Your task to perform on an android device: stop showing notifications on the lock screen Image 0: 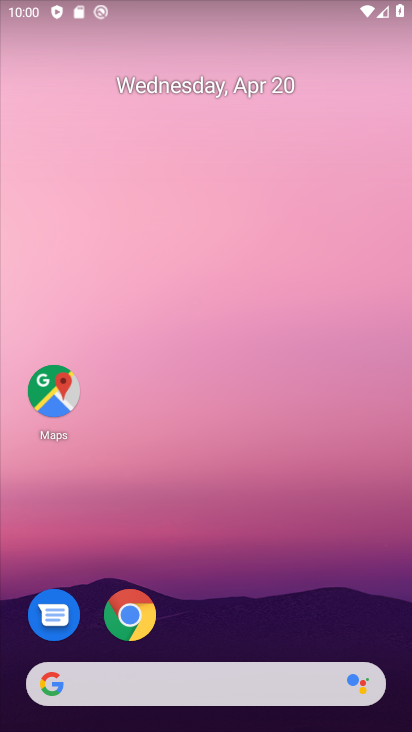
Step 0: drag from (272, 520) to (260, 14)
Your task to perform on an android device: stop showing notifications on the lock screen Image 1: 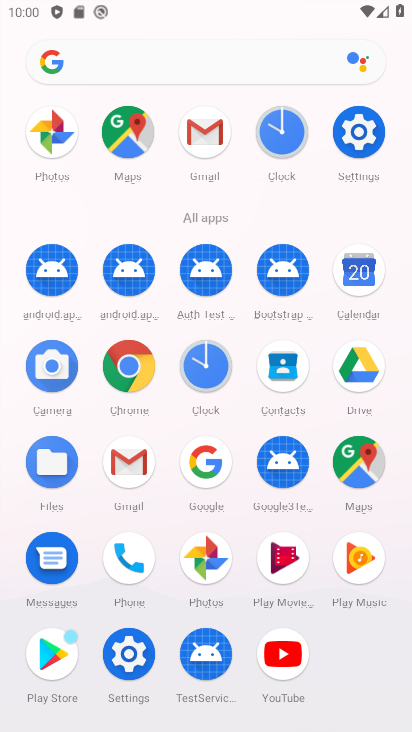
Step 1: click (355, 133)
Your task to perform on an android device: stop showing notifications on the lock screen Image 2: 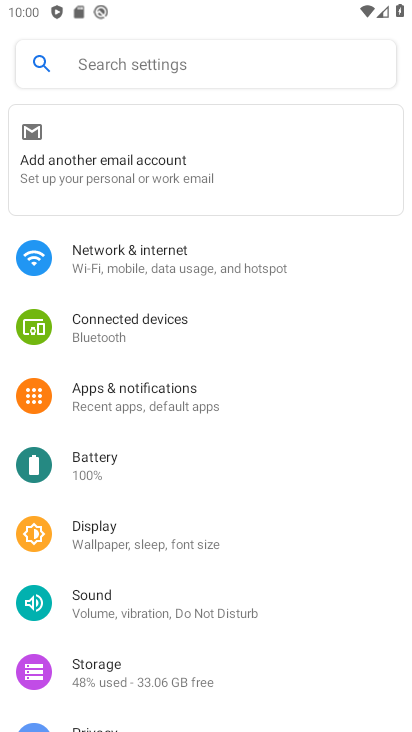
Step 2: click (180, 395)
Your task to perform on an android device: stop showing notifications on the lock screen Image 3: 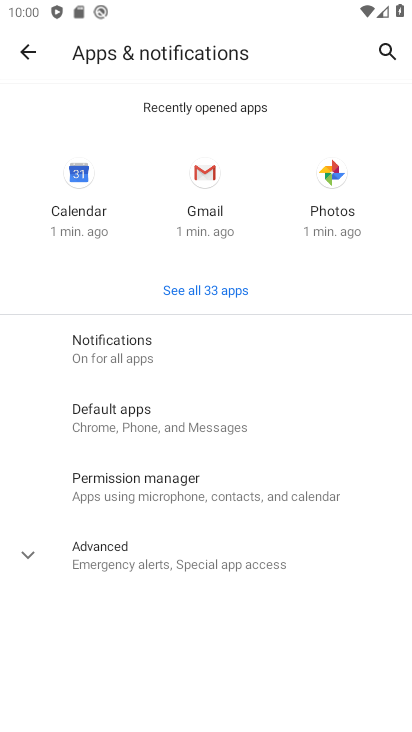
Step 3: click (110, 347)
Your task to perform on an android device: stop showing notifications on the lock screen Image 4: 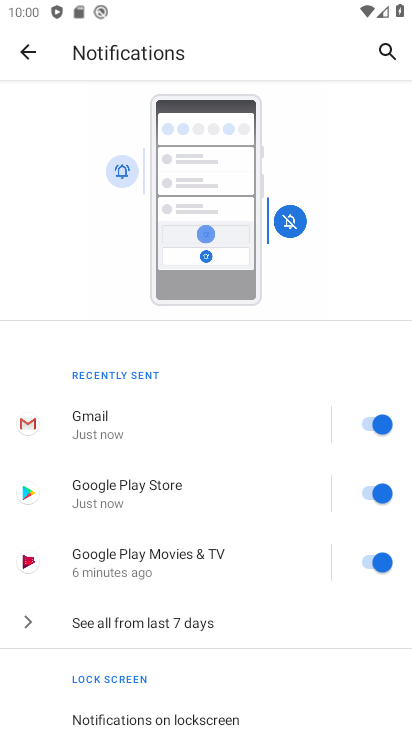
Step 4: drag from (177, 675) to (166, 364)
Your task to perform on an android device: stop showing notifications on the lock screen Image 5: 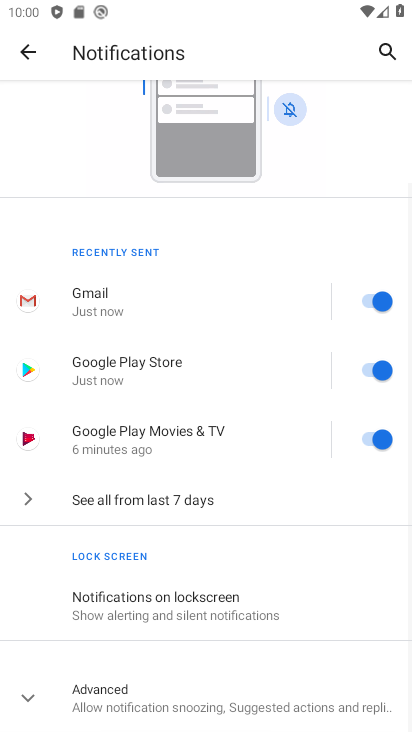
Step 5: click (167, 610)
Your task to perform on an android device: stop showing notifications on the lock screen Image 6: 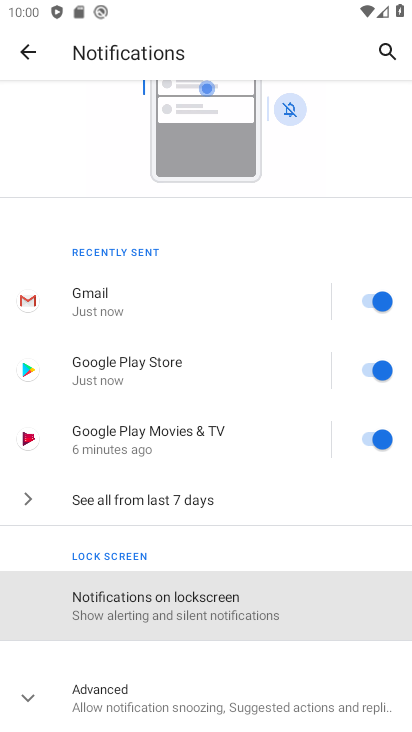
Step 6: click (168, 608)
Your task to perform on an android device: stop showing notifications on the lock screen Image 7: 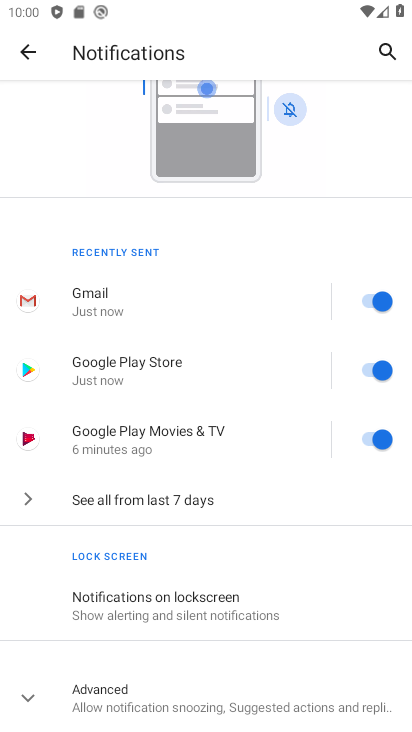
Step 7: click (191, 606)
Your task to perform on an android device: stop showing notifications on the lock screen Image 8: 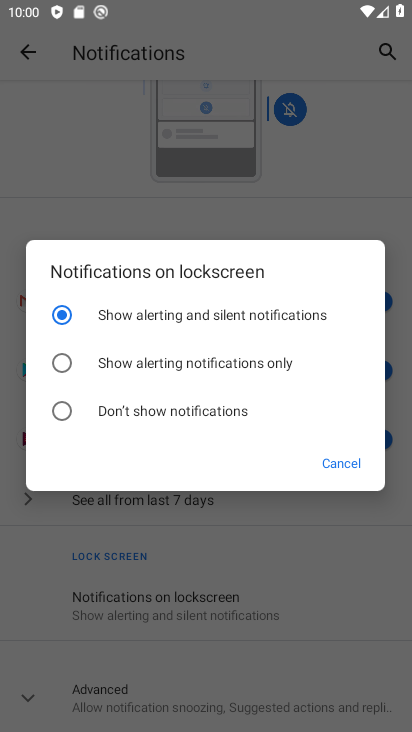
Step 8: click (193, 413)
Your task to perform on an android device: stop showing notifications on the lock screen Image 9: 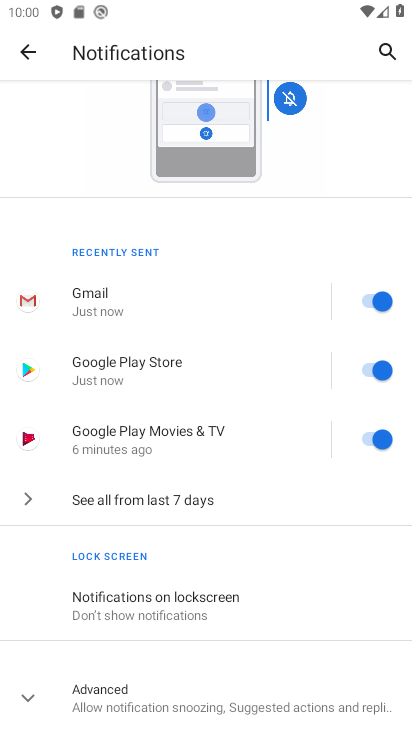
Step 9: task complete